Your task to perform on an android device: turn on improve location accuracy Image 0: 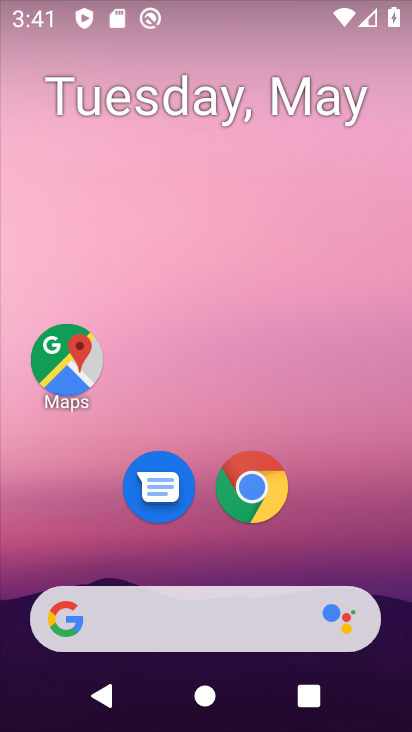
Step 0: drag from (298, 489) to (205, 13)
Your task to perform on an android device: turn on improve location accuracy Image 1: 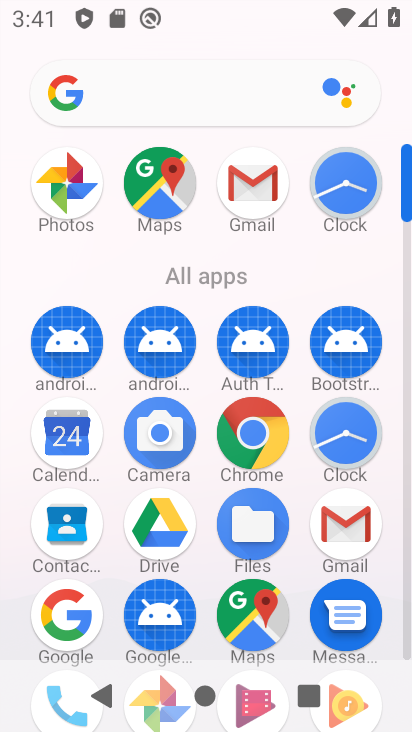
Step 1: drag from (119, 639) to (177, 111)
Your task to perform on an android device: turn on improve location accuracy Image 2: 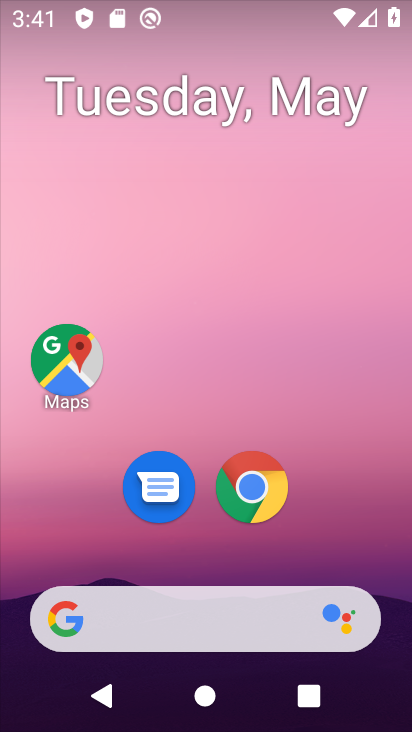
Step 2: drag from (292, 513) to (296, 57)
Your task to perform on an android device: turn on improve location accuracy Image 3: 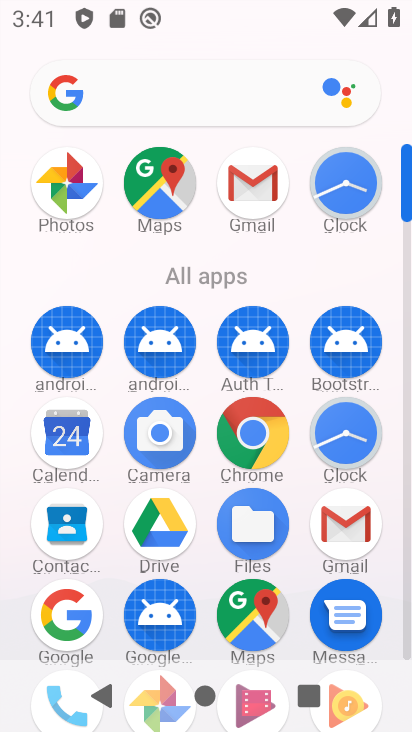
Step 3: drag from (290, 617) to (271, 205)
Your task to perform on an android device: turn on improve location accuracy Image 4: 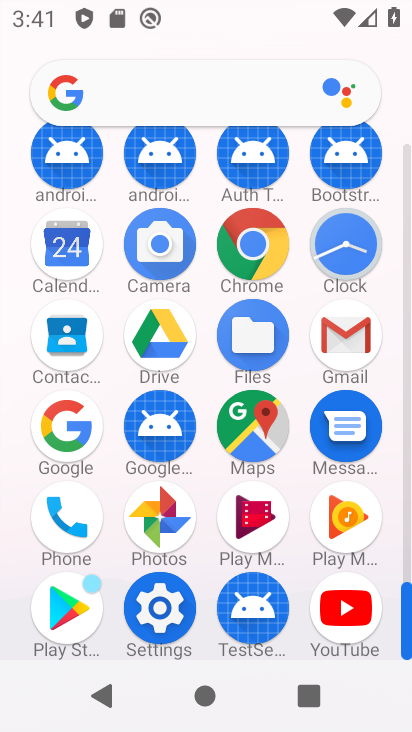
Step 4: click (158, 614)
Your task to perform on an android device: turn on improve location accuracy Image 5: 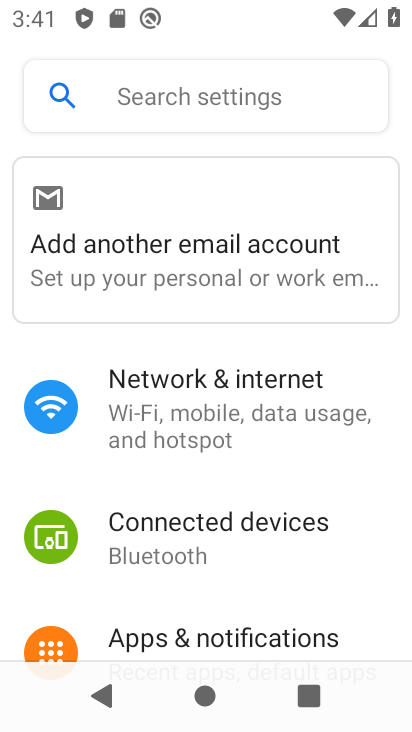
Step 5: drag from (273, 481) to (320, 144)
Your task to perform on an android device: turn on improve location accuracy Image 6: 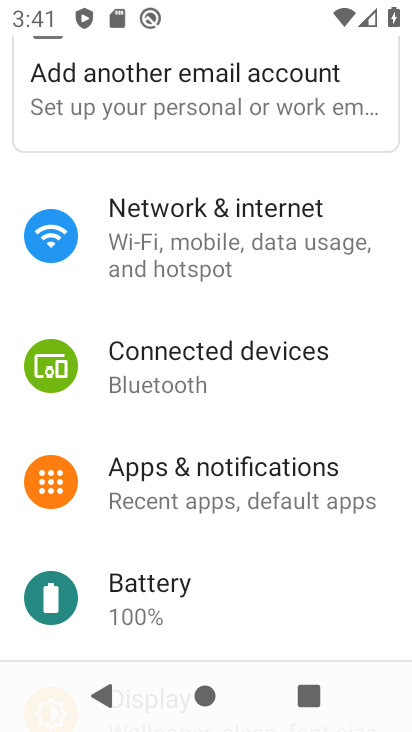
Step 6: drag from (249, 611) to (224, 118)
Your task to perform on an android device: turn on improve location accuracy Image 7: 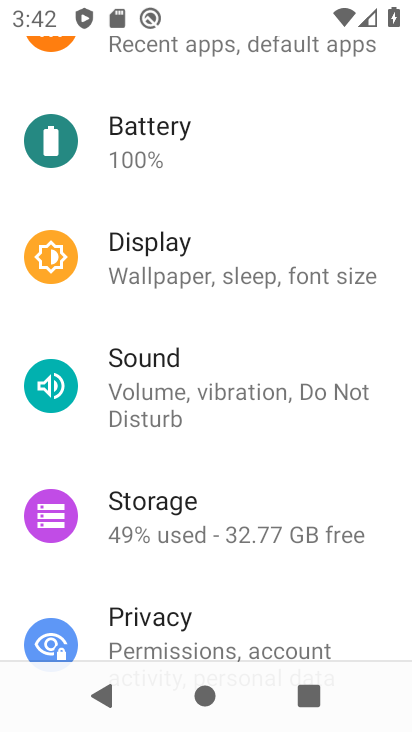
Step 7: drag from (144, 587) to (170, 53)
Your task to perform on an android device: turn on improve location accuracy Image 8: 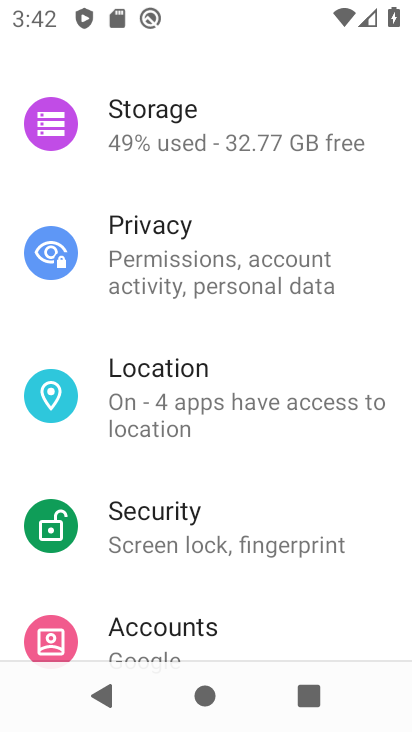
Step 8: click (152, 414)
Your task to perform on an android device: turn on improve location accuracy Image 9: 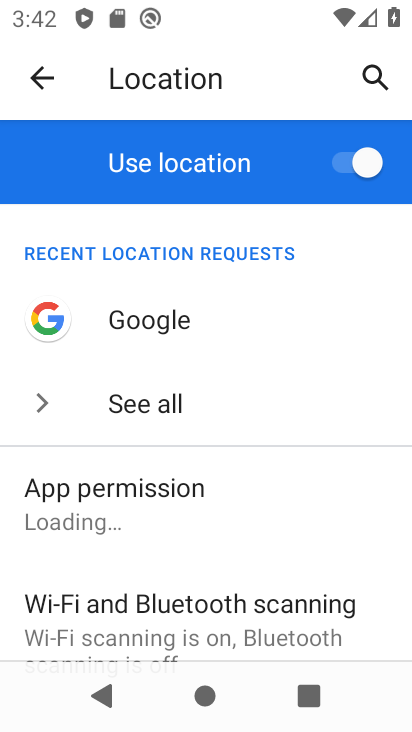
Step 9: drag from (180, 593) to (247, 183)
Your task to perform on an android device: turn on improve location accuracy Image 10: 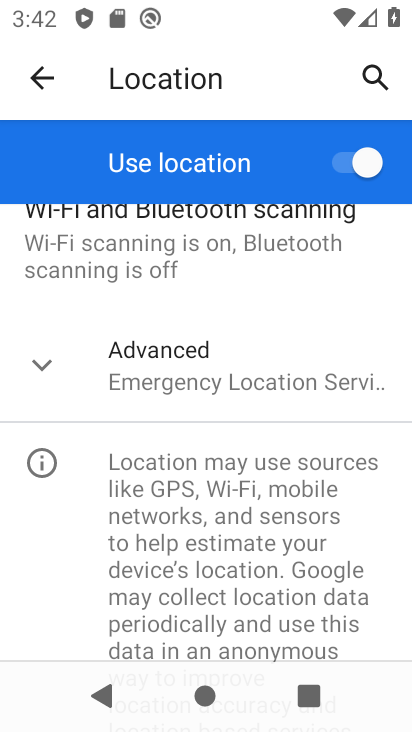
Step 10: click (161, 389)
Your task to perform on an android device: turn on improve location accuracy Image 11: 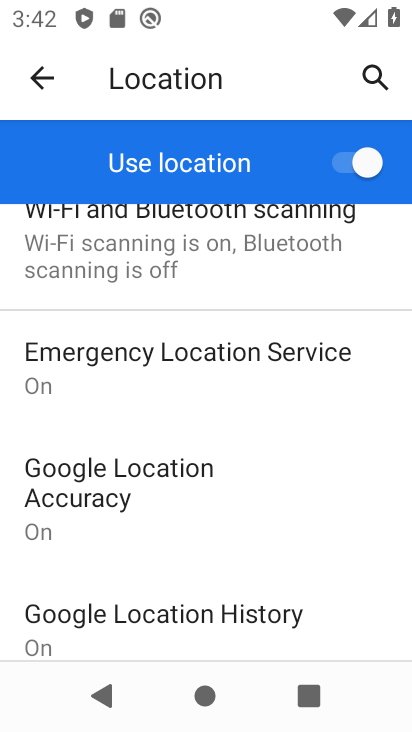
Step 11: click (139, 470)
Your task to perform on an android device: turn on improve location accuracy Image 12: 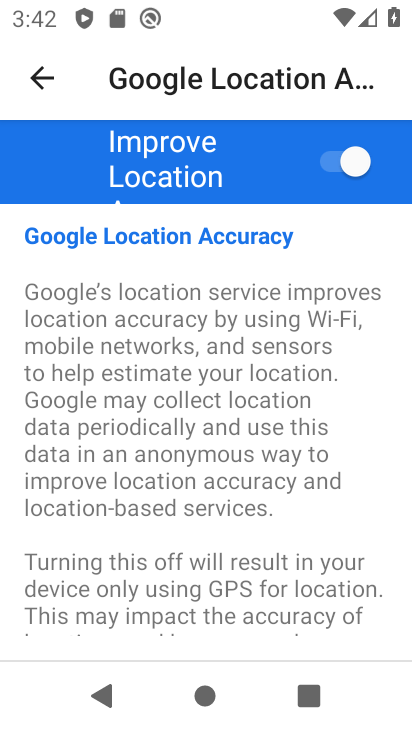
Step 12: task complete